Your task to perform on an android device: turn off data saver in the chrome app Image 0: 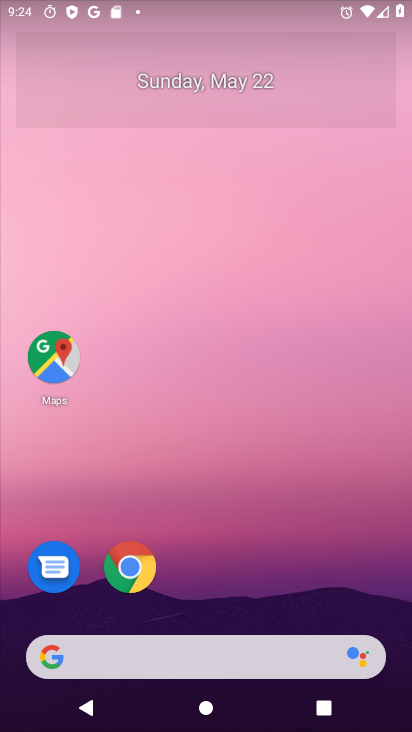
Step 0: click (133, 567)
Your task to perform on an android device: turn off data saver in the chrome app Image 1: 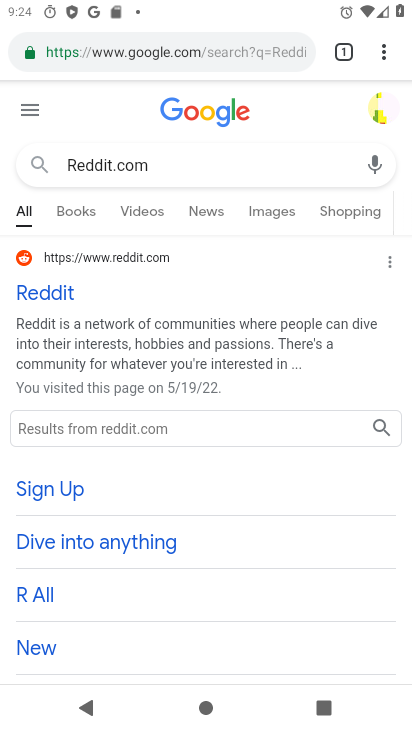
Step 1: click (380, 57)
Your task to perform on an android device: turn off data saver in the chrome app Image 2: 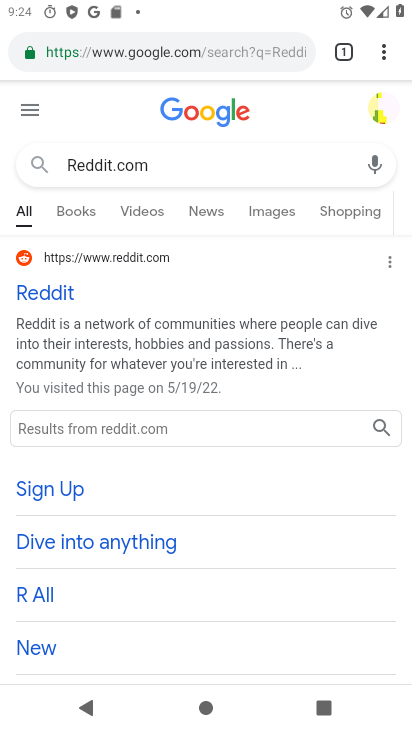
Step 2: click (380, 57)
Your task to perform on an android device: turn off data saver in the chrome app Image 3: 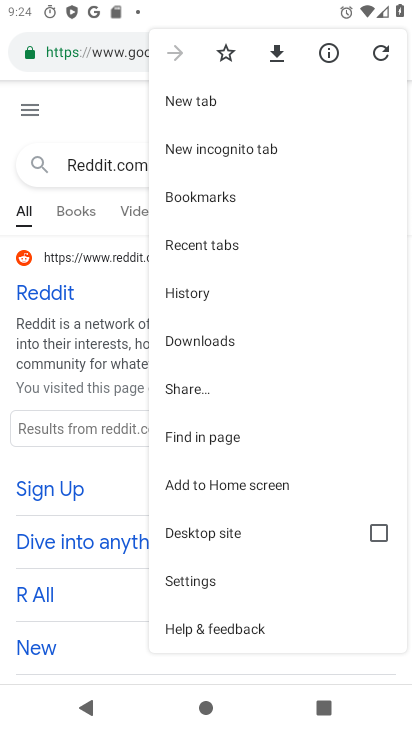
Step 3: click (205, 592)
Your task to perform on an android device: turn off data saver in the chrome app Image 4: 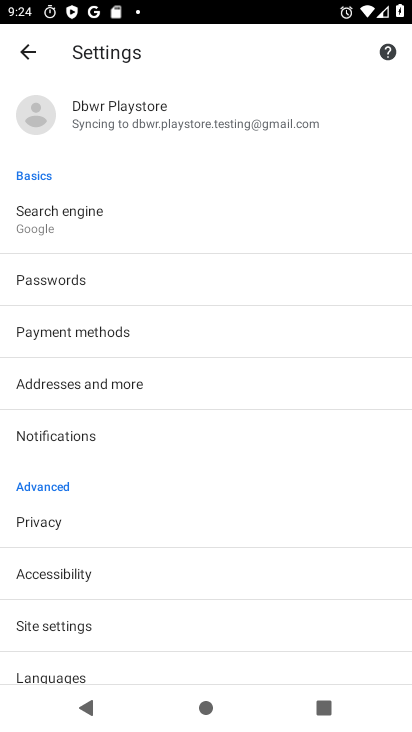
Step 4: drag from (128, 581) to (162, 425)
Your task to perform on an android device: turn off data saver in the chrome app Image 5: 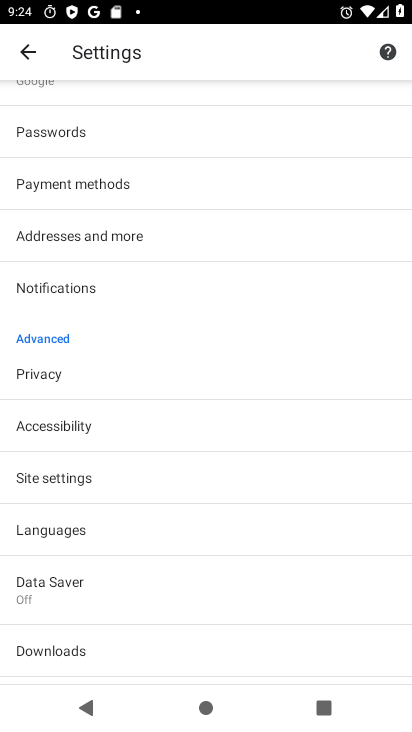
Step 5: click (69, 604)
Your task to perform on an android device: turn off data saver in the chrome app Image 6: 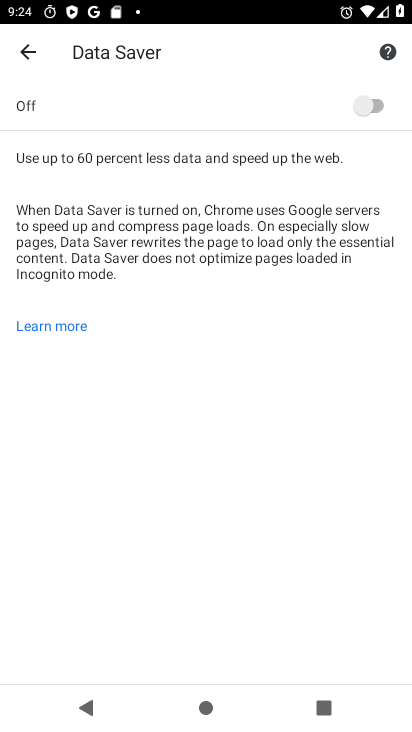
Step 6: task complete